Your task to perform on an android device: Open the web browser Image 0: 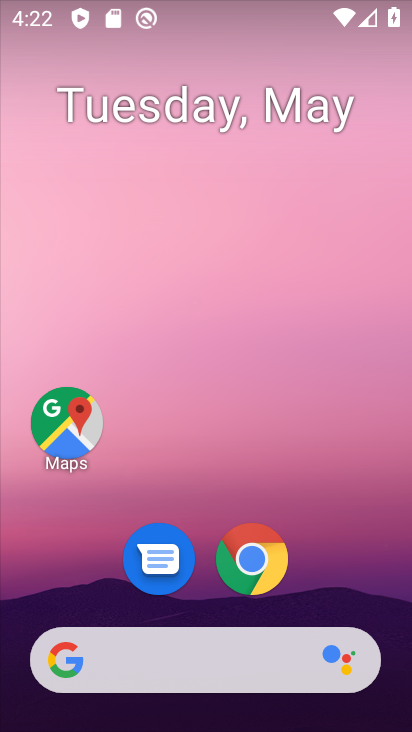
Step 0: click (261, 560)
Your task to perform on an android device: Open the web browser Image 1: 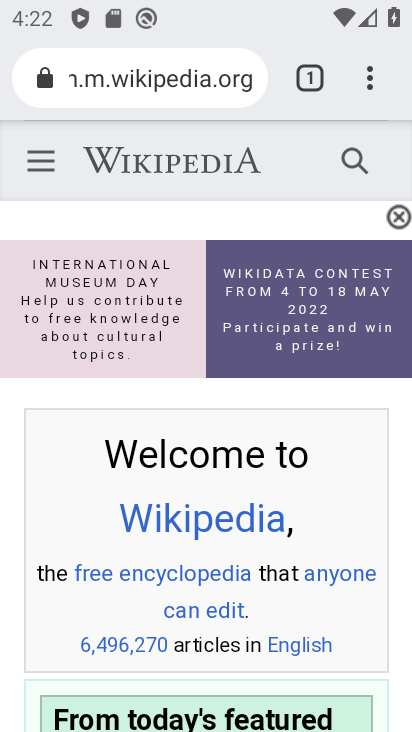
Step 1: task complete